Your task to perform on an android device: Open maps Image 0: 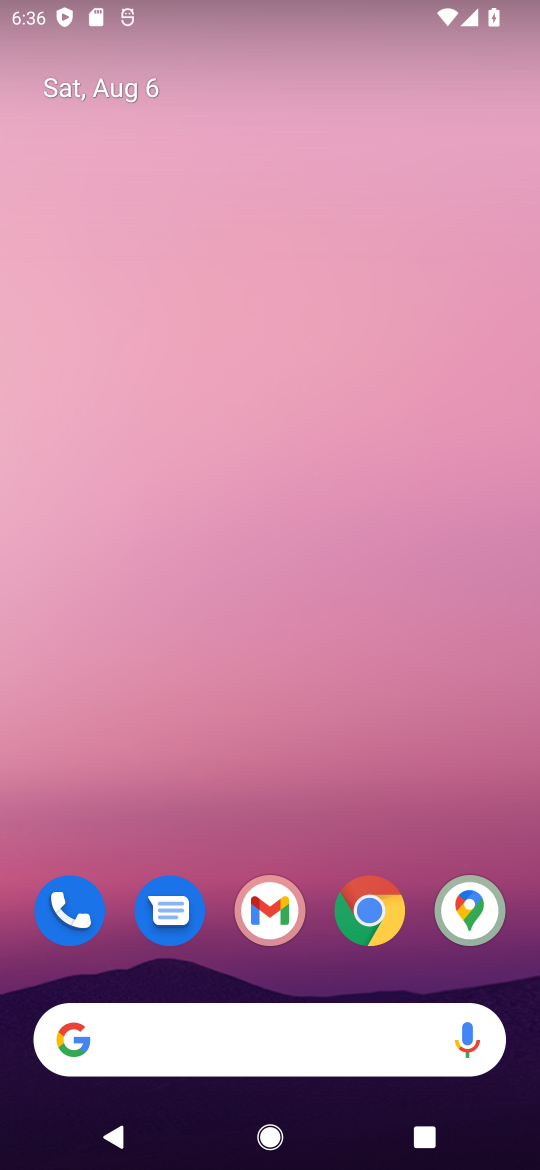
Step 0: click (479, 906)
Your task to perform on an android device: Open maps Image 1: 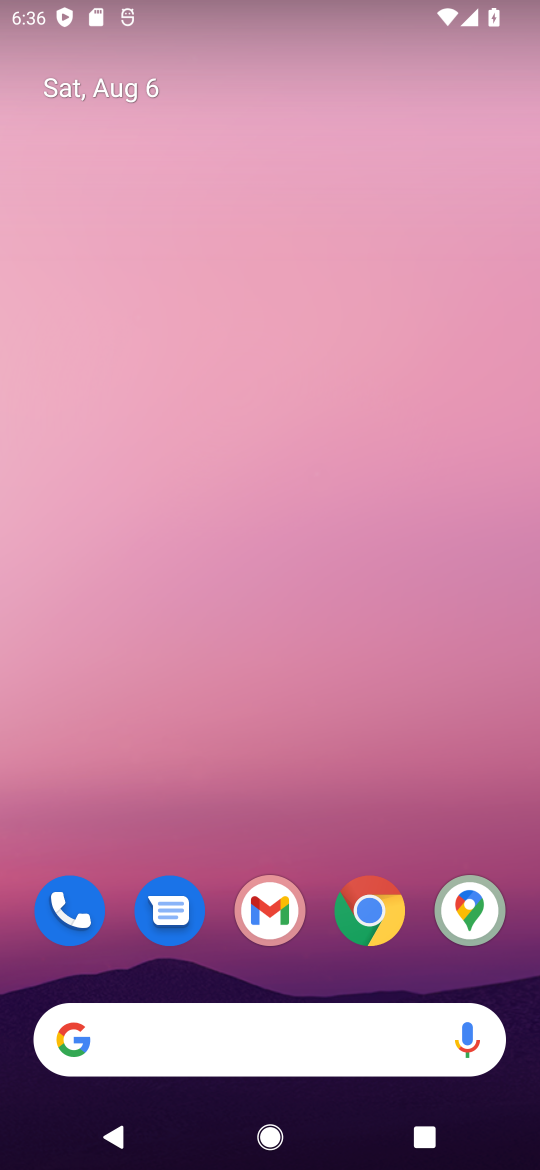
Step 1: click (471, 914)
Your task to perform on an android device: Open maps Image 2: 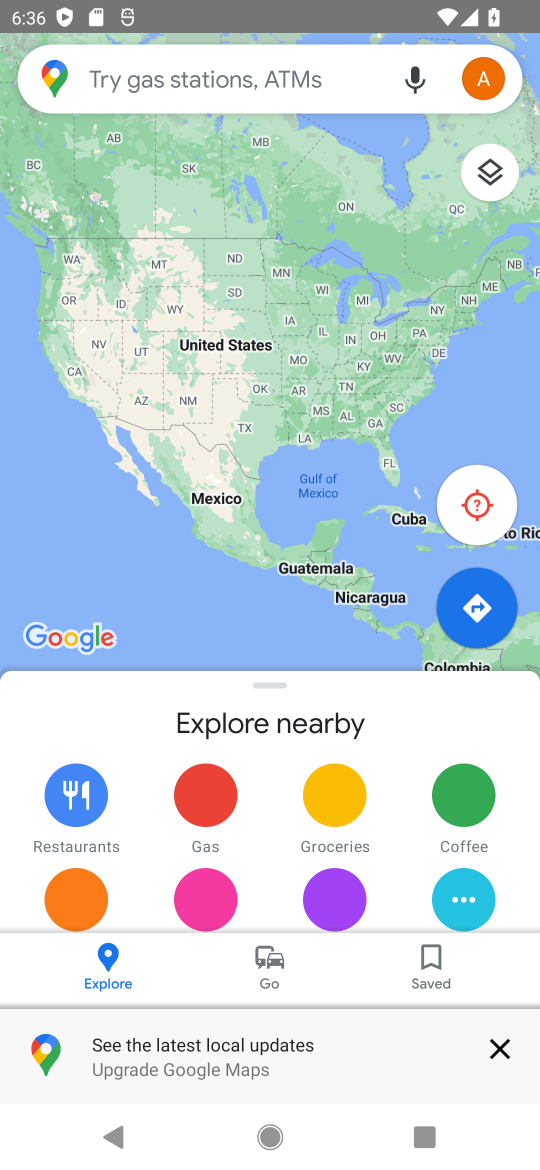
Step 2: task complete